Your task to perform on an android device: choose inbox layout in the gmail app Image 0: 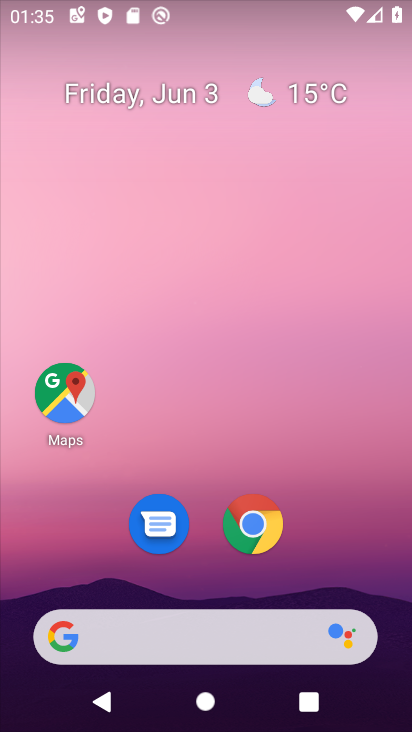
Step 0: drag from (331, 523) to (210, 11)
Your task to perform on an android device: choose inbox layout in the gmail app Image 1: 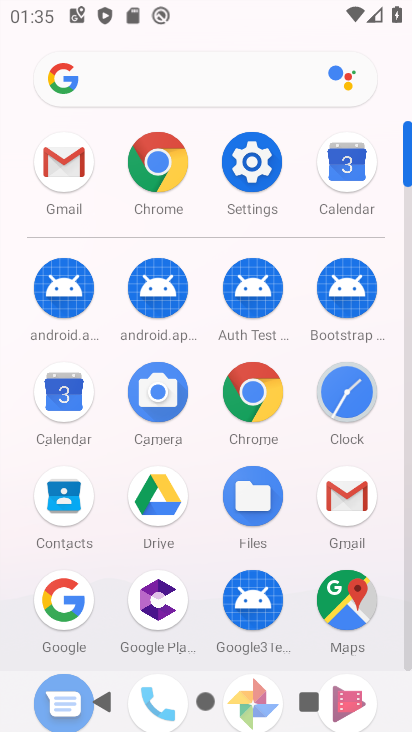
Step 1: click (72, 152)
Your task to perform on an android device: choose inbox layout in the gmail app Image 2: 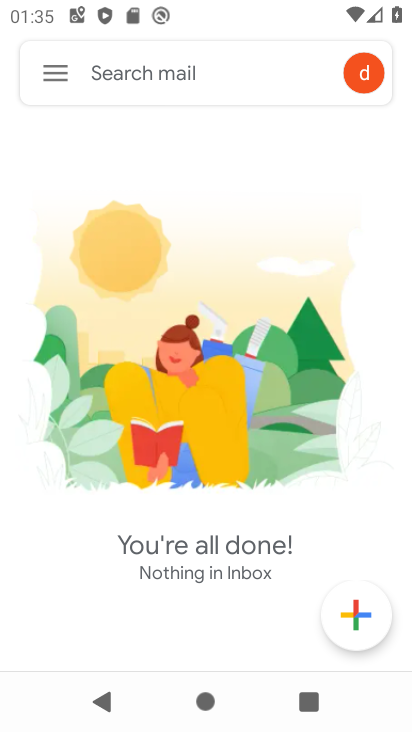
Step 2: click (60, 71)
Your task to perform on an android device: choose inbox layout in the gmail app Image 3: 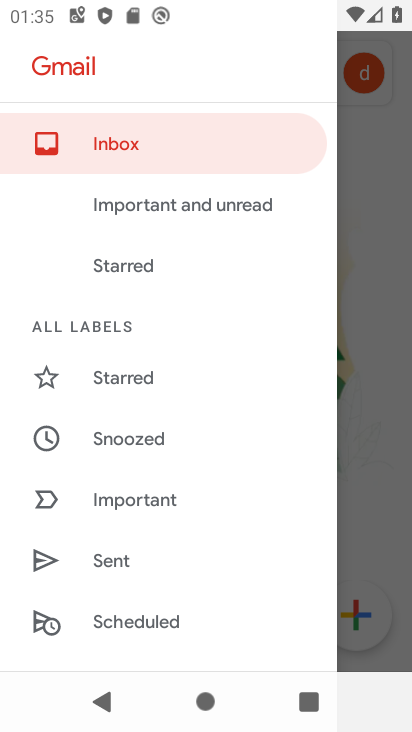
Step 3: drag from (186, 563) to (188, 4)
Your task to perform on an android device: choose inbox layout in the gmail app Image 4: 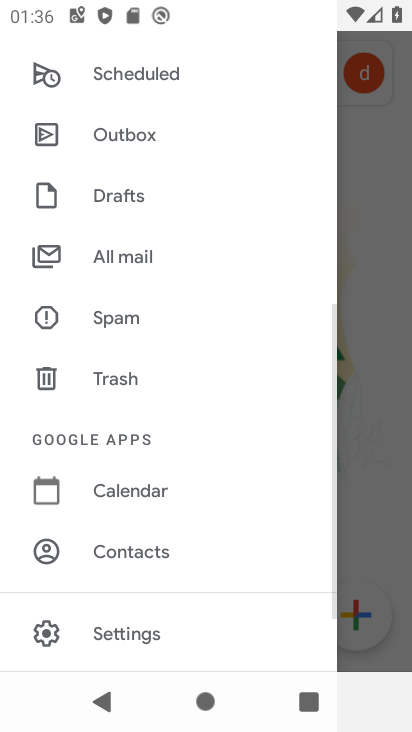
Step 4: click (166, 630)
Your task to perform on an android device: choose inbox layout in the gmail app Image 5: 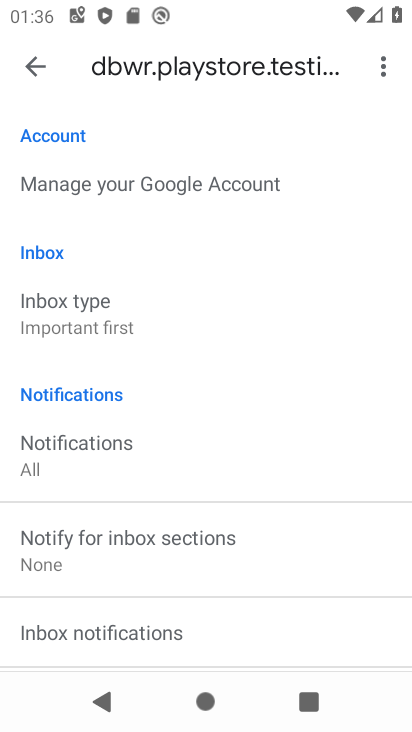
Step 5: click (100, 299)
Your task to perform on an android device: choose inbox layout in the gmail app Image 6: 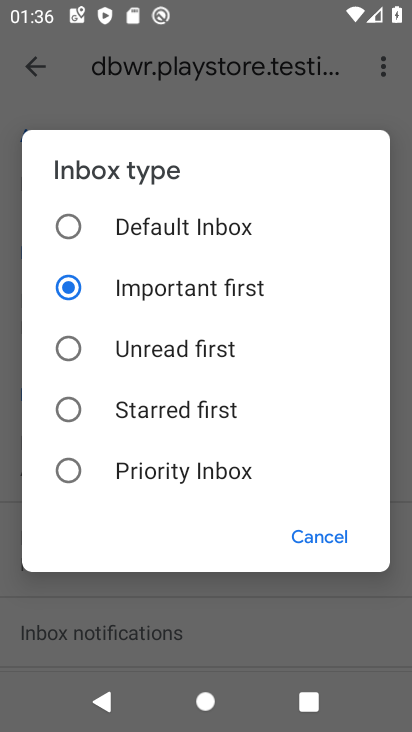
Step 6: click (84, 223)
Your task to perform on an android device: choose inbox layout in the gmail app Image 7: 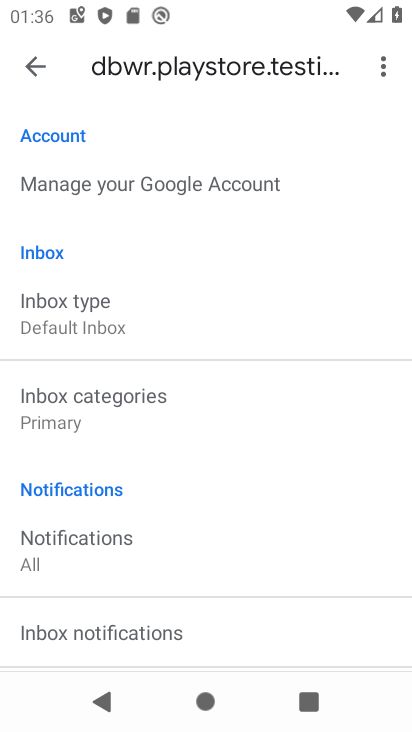
Step 7: task complete